Your task to perform on an android device: Open calendar and show me the second week of next month Image 0: 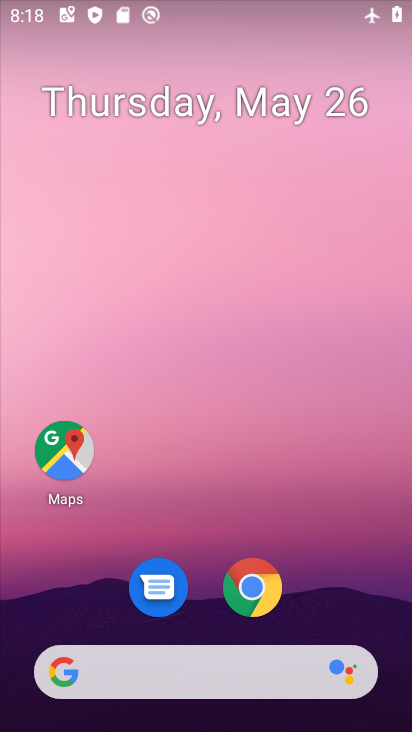
Step 0: drag from (201, 627) to (204, 195)
Your task to perform on an android device: Open calendar and show me the second week of next month Image 1: 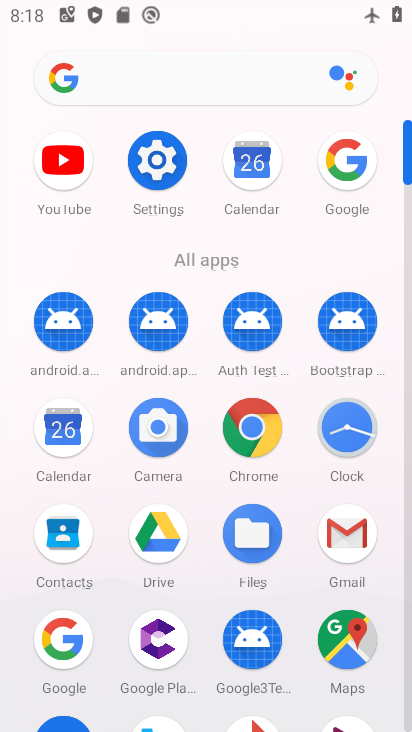
Step 1: click (271, 189)
Your task to perform on an android device: Open calendar and show me the second week of next month Image 2: 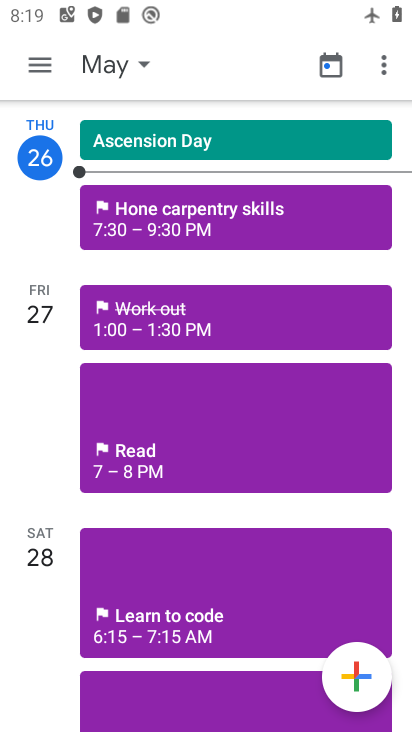
Step 2: click (123, 61)
Your task to perform on an android device: Open calendar and show me the second week of next month Image 3: 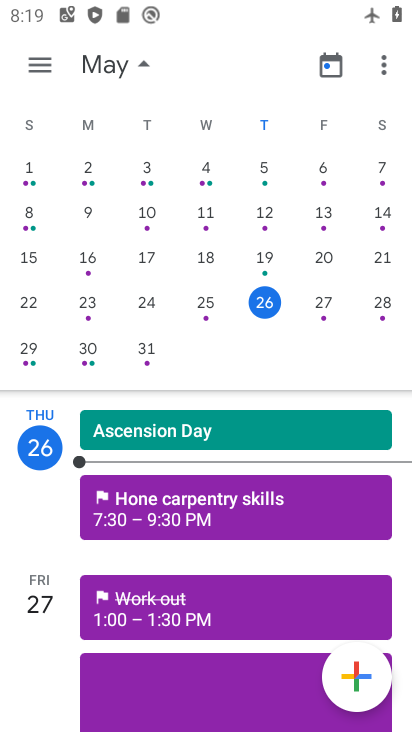
Step 3: drag from (344, 241) to (29, 220)
Your task to perform on an android device: Open calendar and show me the second week of next month Image 4: 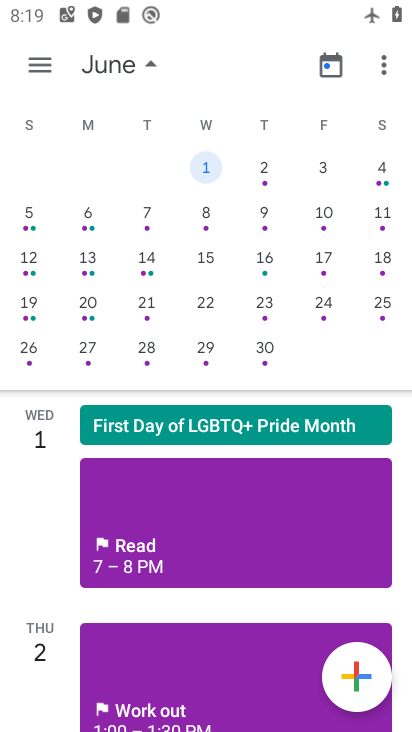
Step 4: click (26, 216)
Your task to perform on an android device: Open calendar and show me the second week of next month Image 5: 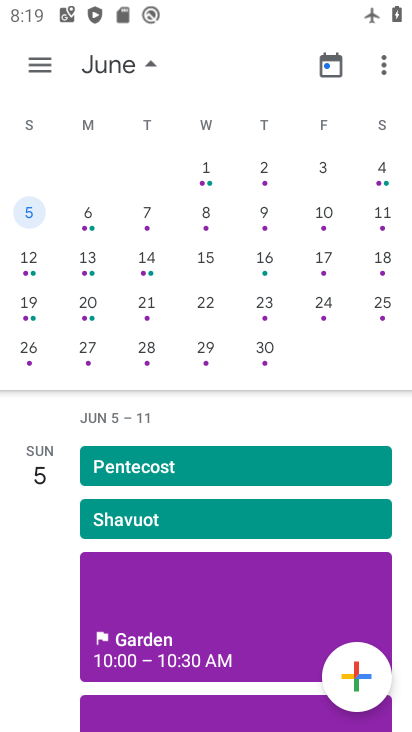
Step 5: task complete